Your task to perform on an android device: Open Chrome and go to settings Image 0: 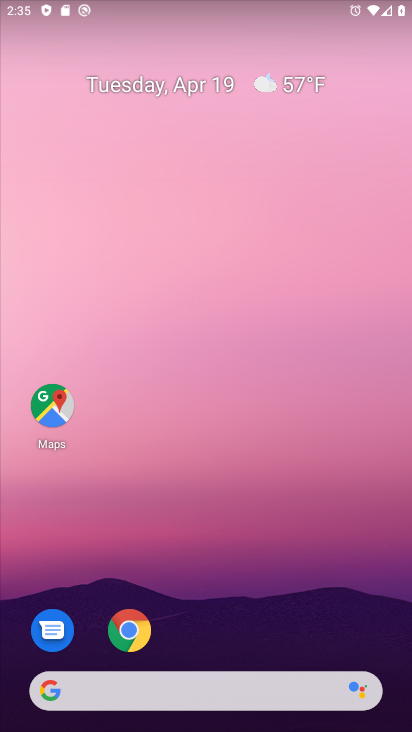
Step 0: click (128, 633)
Your task to perform on an android device: Open Chrome and go to settings Image 1: 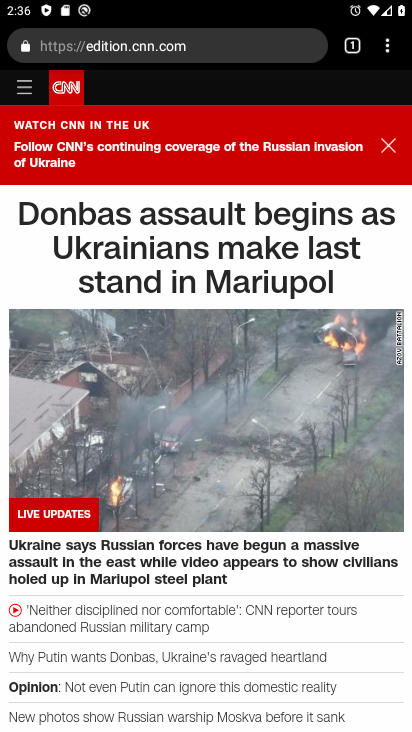
Step 1: click (387, 48)
Your task to perform on an android device: Open Chrome and go to settings Image 2: 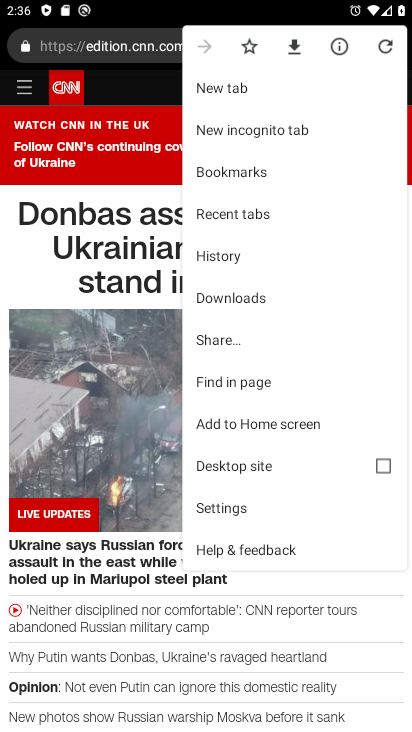
Step 2: click (226, 509)
Your task to perform on an android device: Open Chrome and go to settings Image 3: 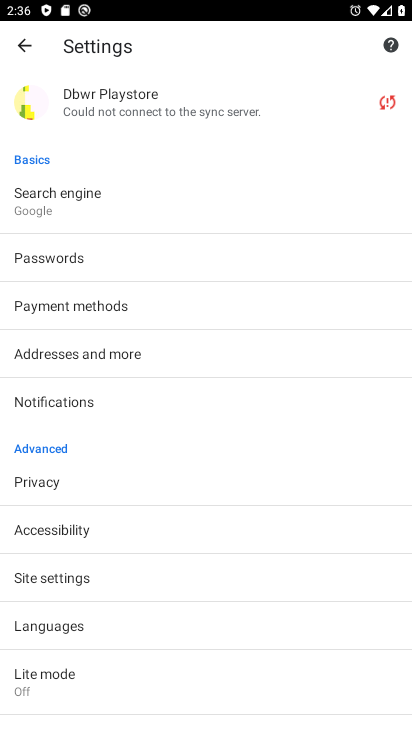
Step 3: task complete